Your task to perform on an android device: View the shopping cart on ebay. Add asus rog to the cart on ebay, then select checkout. Image 0: 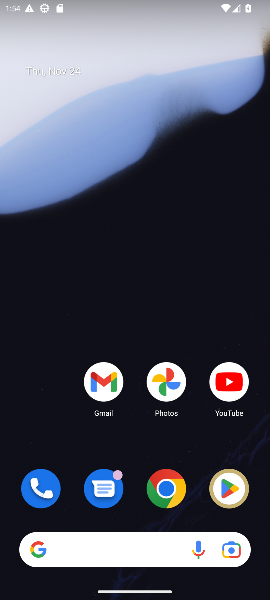
Step 0: click (169, 497)
Your task to perform on an android device: View the shopping cart on ebay. Add asus rog to the cart on ebay, then select checkout. Image 1: 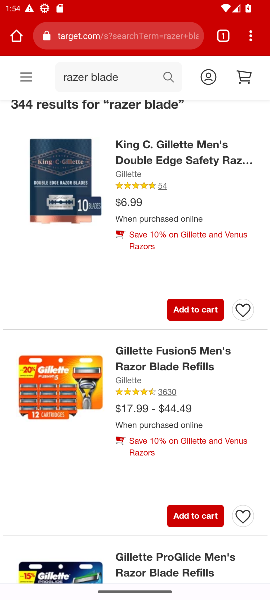
Step 1: click (108, 36)
Your task to perform on an android device: View the shopping cart on ebay. Add asus rog to the cart on ebay, then select checkout. Image 2: 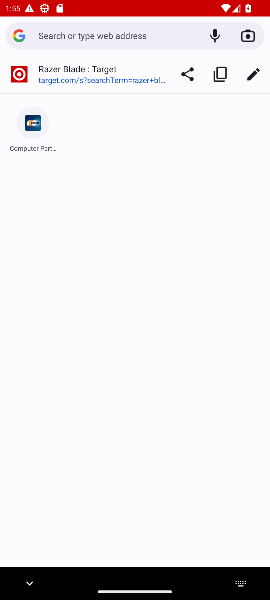
Step 2: type "ebay.com"
Your task to perform on an android device: View the shopping cart on ebay. Add asus rog to the cart on ebay, then select checkout. Image 3: 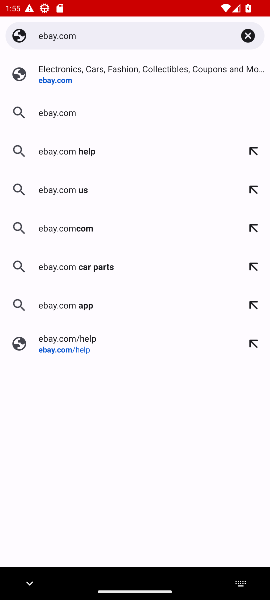
Step 3: click (51, 85)
Your task to perform on an android device: View the shopping cart on ebay. Add asus rog to the cart on ebay, then select checkout. Image 4: 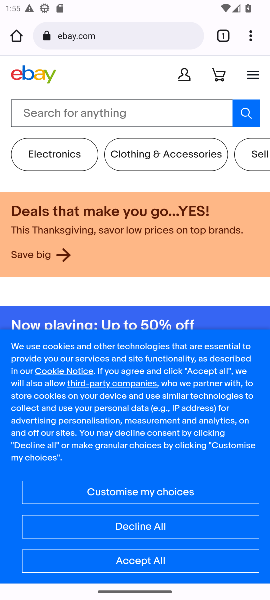
Step 4: click (218, 76)
Your task to perform on an android device: View the shopping cart on ebay. Add asus rog to the cart on ebay, then select checkout. Image 5: 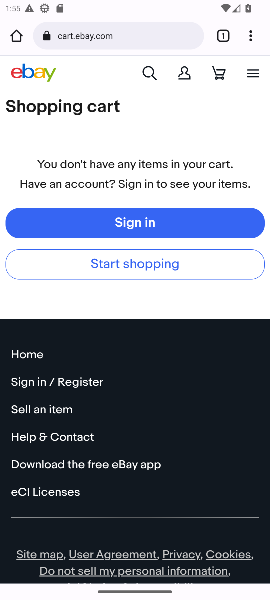
Step 5: click (148, 74)
Your task to perform on an android device: View the shopping cart on ebay. Add asus rog to the cart on ebay, then select checkout. Image 6: 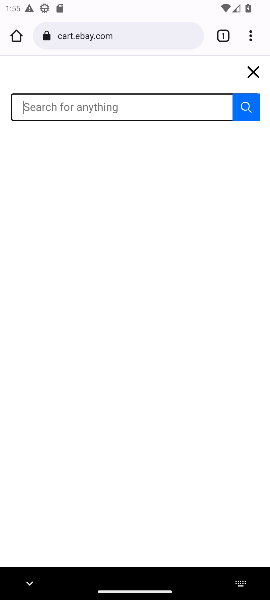
Step 6: type "asus rog"
Your task to perform on an android device: View the shopping cart on ebay. Add asus rog to the cart on ebay, then select checkout. Image 7: 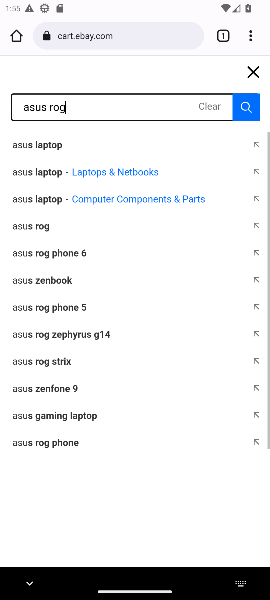
Step 7: click (34, 230)
Your task to perform on an android device: View the shopping cart on ebay. Add asus rog to the cart on ebay, then select checkout. Image 8: 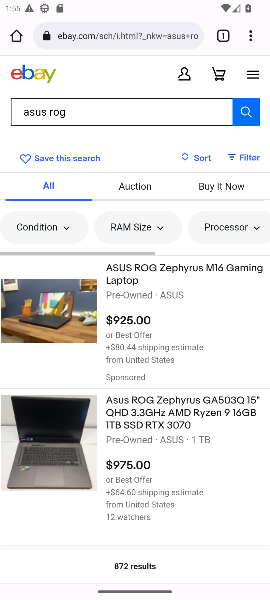
Step 8: click (55, 333)
Your task to perform on an android device: View the shopping cart on ebay. Add asus rog to the cart on ebay, then select checkout. Image 9: 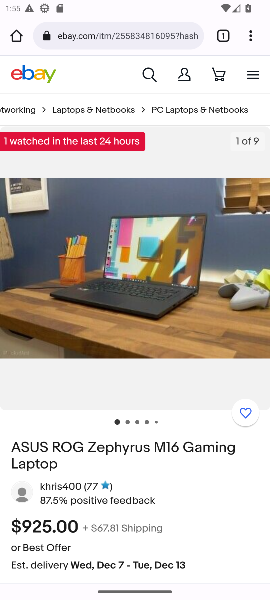
Step 9: drag from (141, 454) to (108, 213)
Your task to perform on an android device: View the shopping cart on ebay. Add asus rog to the cart on ebay, then select checkout. Image 10: 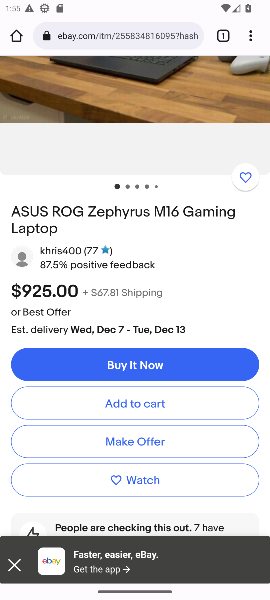
Step 10: click (124, 401)
Your task to perform on an android device: View the shopping cart on ebay. Add asus rog to the cart on ebay, then select checkout. Image 11: 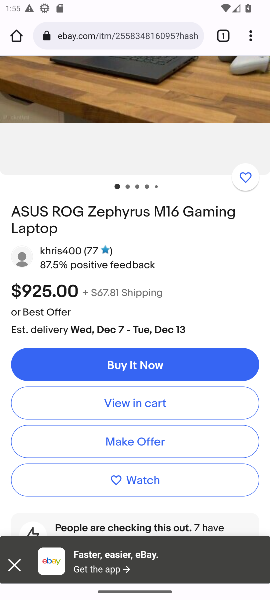
Step 11: click (124, 401)
Your task to perform on an android device: View the shopping cart on ebay. Add asus rog to the cart on ebay, then select checkout. Image 12: 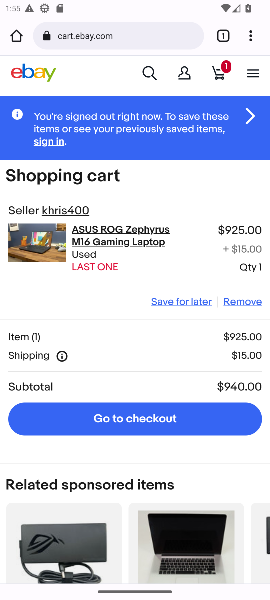
Step 12: click (127, 417)
Your task to perform on an android device: View the shopping cart on ebay. Add asus rog to the cart on ebay, then select checkout. Image 13: 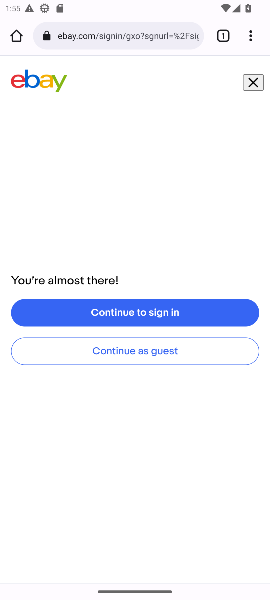
Step 13: task complete